Your task to perform on an android device: Turn on the flashlight Image 0: 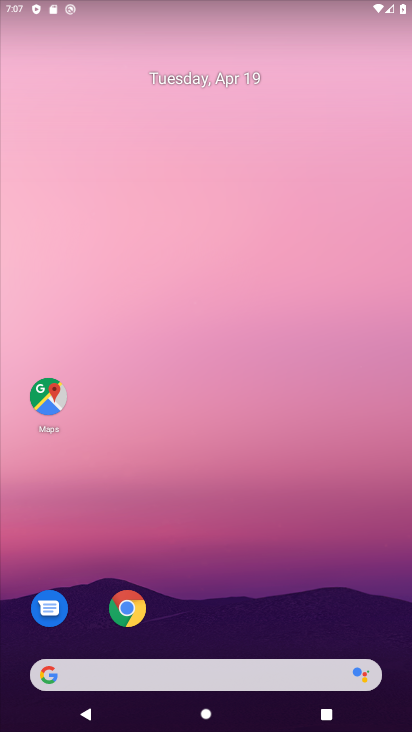
Step 0: click (292, 139)
Your task to perform on an android device: Turn on the flashlight Image 1: 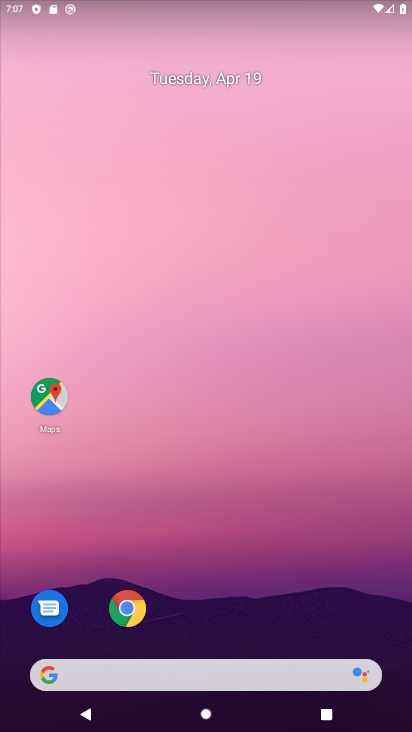
Step 1: drag from (292, 621) to (276, 78)
Your task to perform on an android device: Turn on the flashlight Image 2: 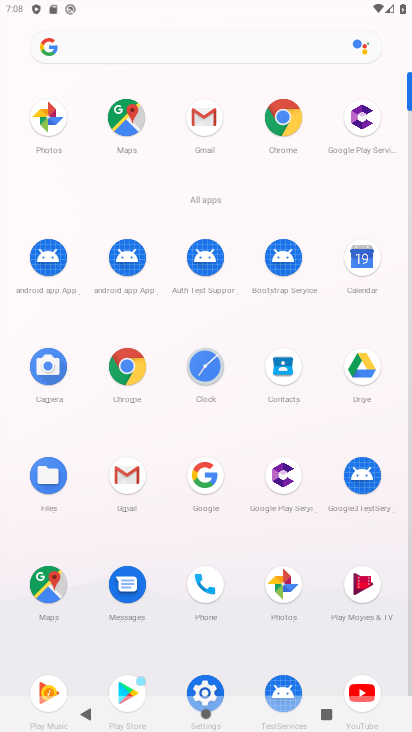
Step 2: click (205, 370)
Your task to perform on an android device: Turn on the flashlight Image 3: 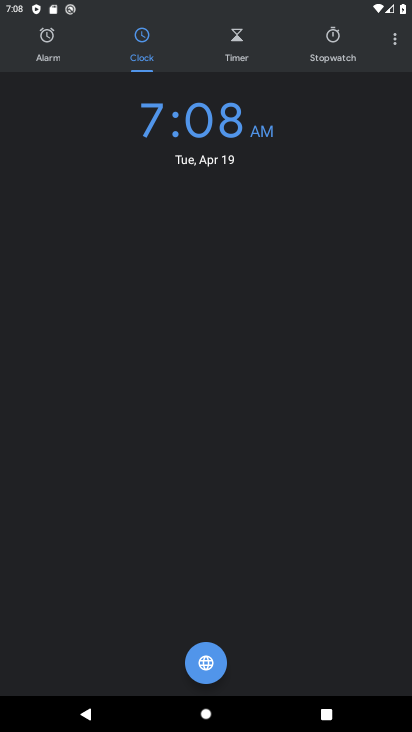
Step 3: click (237, 42)
Your task to perform on an android device: Turn on the flashlight Image 4: 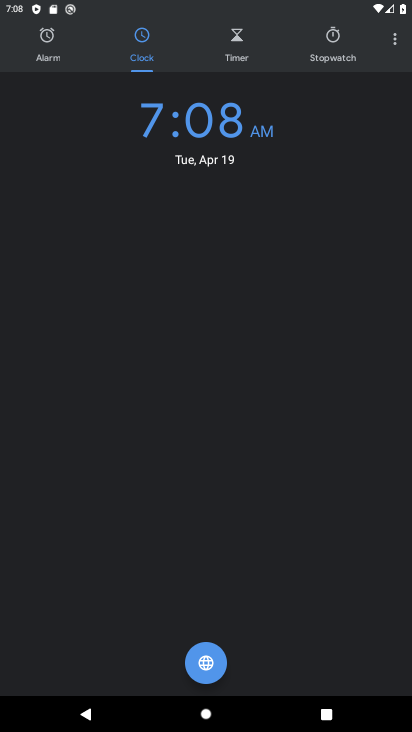
Step 4: task complete